Your task to perform on an android device: Go to sound settings Image 0: 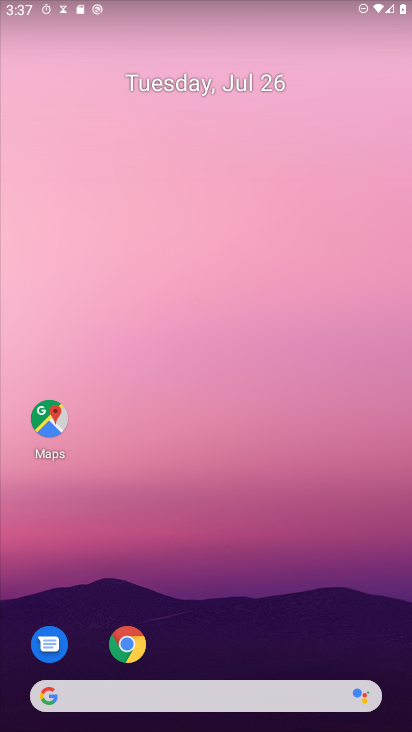
Step 0: press home button
Your task to perform on an android device: Go to sound settings Image 1: 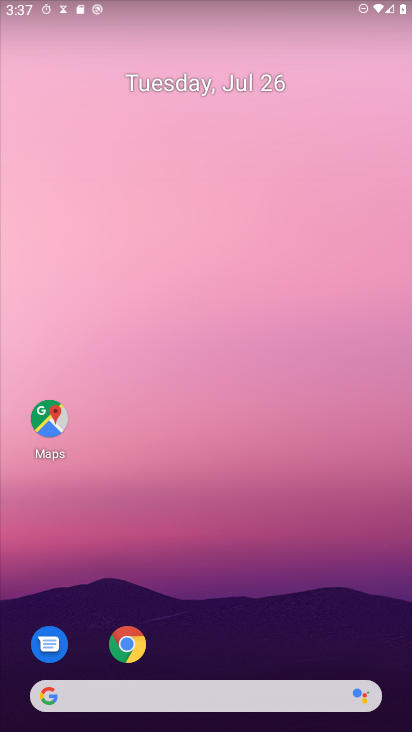
Step 1: drag from (305, 541) to (299, 110)
Your task to perform on an android device: Go to sound settings Image 2: 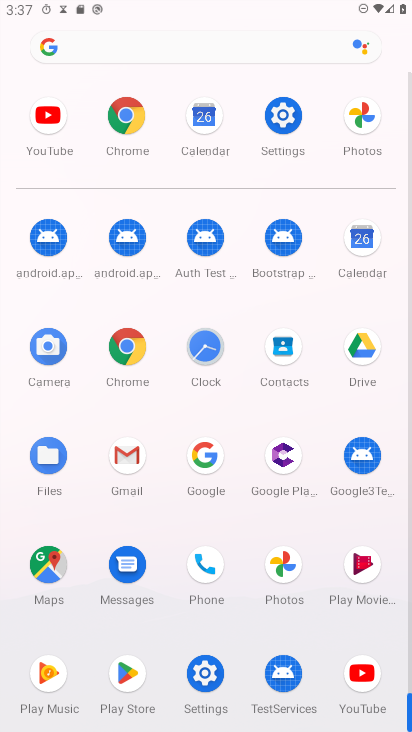
Step 2: click (283, 105)
Your task to perform on an android device: Go to sound settings Image 3: 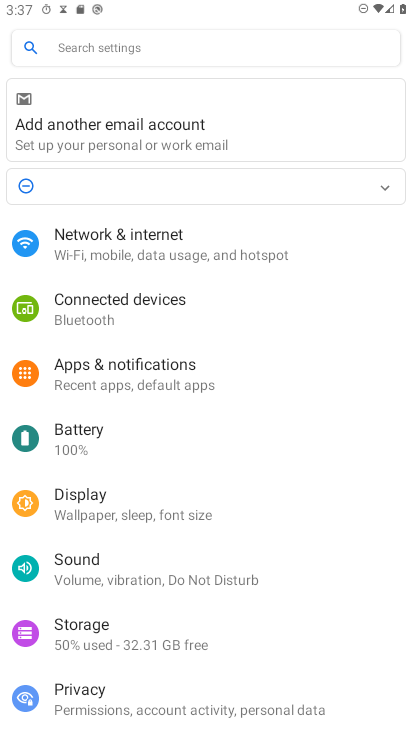
Step 3: click (147, 562)
Your task to perform on an android device: Go to sound settings Image 4: 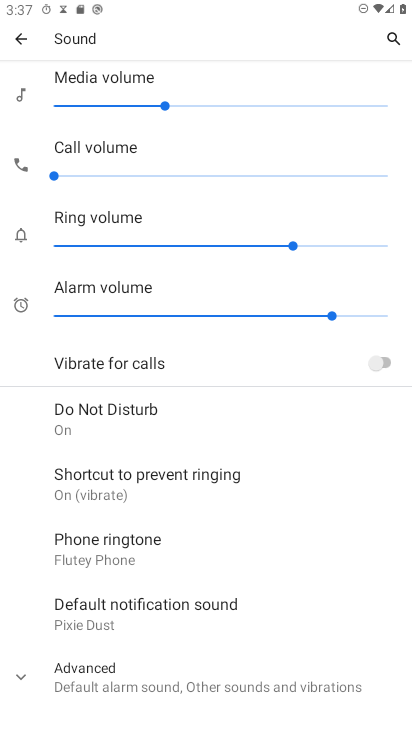
Step 4: task complete